Your task to perform on an android device: turn on data saver in the chrome app Image 0: 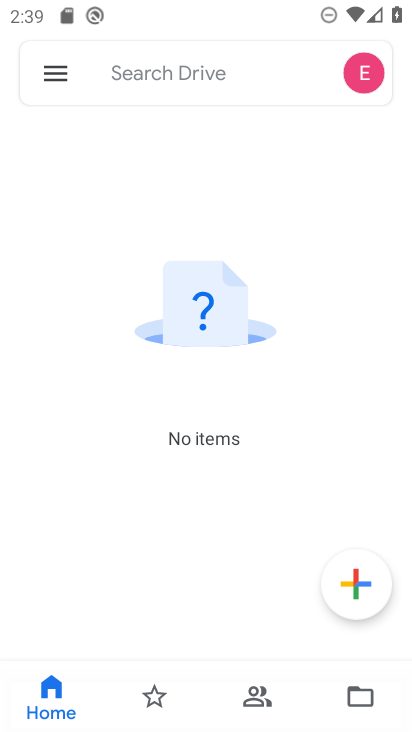
Step 0: press home button
Your task to perform on an android device: turn on data saver in the chrome app Image 1: 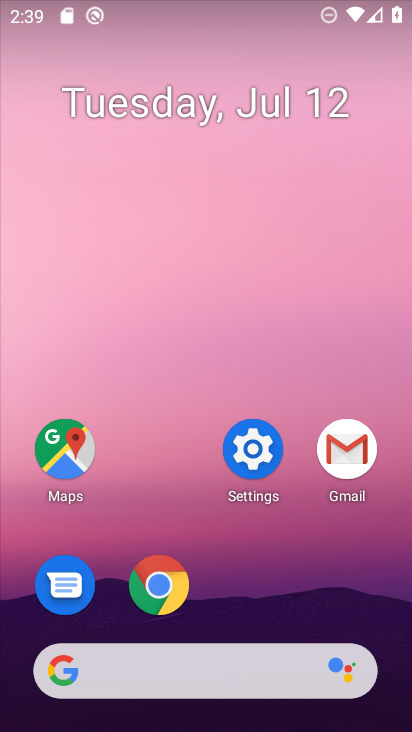
Step 1: click (163, 595)
Your task to perform on an android device: turn on data saver in the chrome app Image 2: 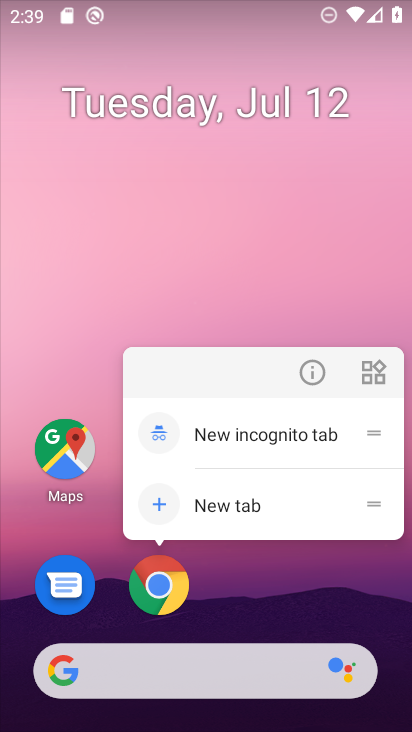
Step 2: click (163, 580)
Your task to perform on an android device: turn on data saver in the chrome app Image 3: 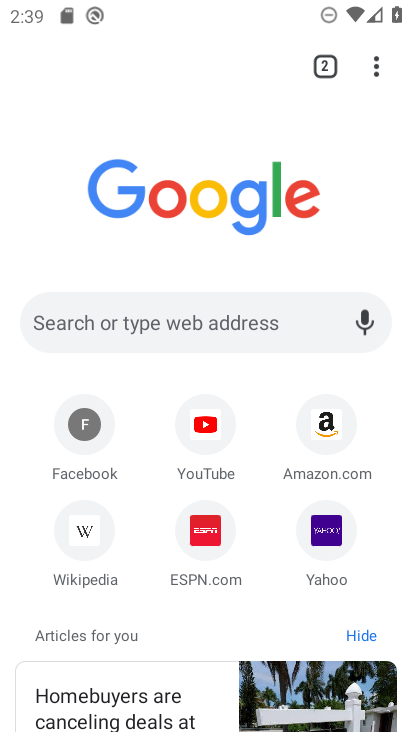
Step 3: click (375, 62)
Your task to perform on an android device: turn on data saver in the chrome app Image 4: 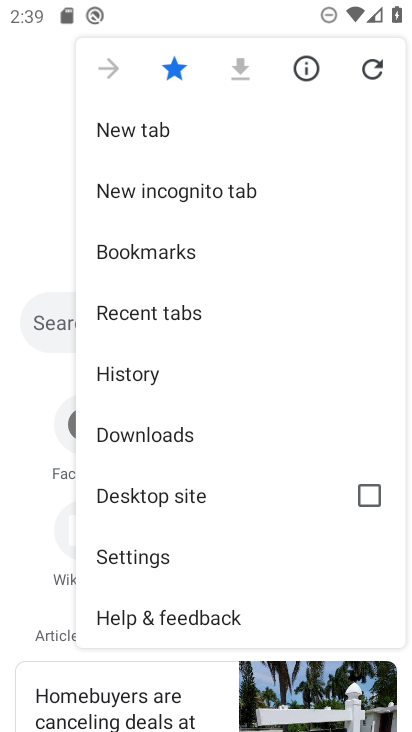
Step 4: click (120, 548)
Your task to perform on an android device: turn on data saver in the chrome app Image 5: 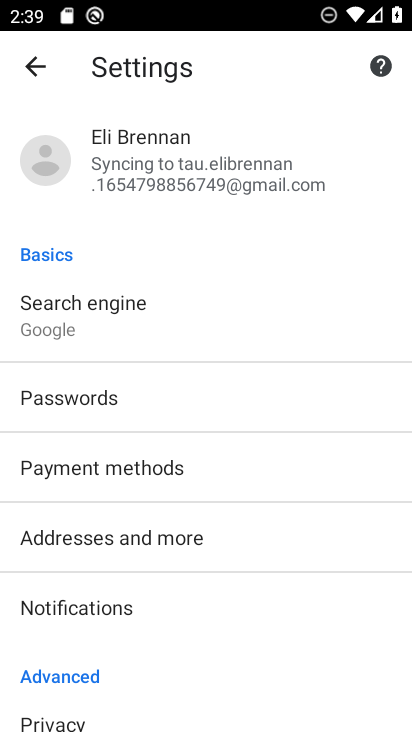
Step 5: drag from (188, 691) to (187, 403)
Your task to perform on an android device: turn on data saver in the chrome app Image 6: 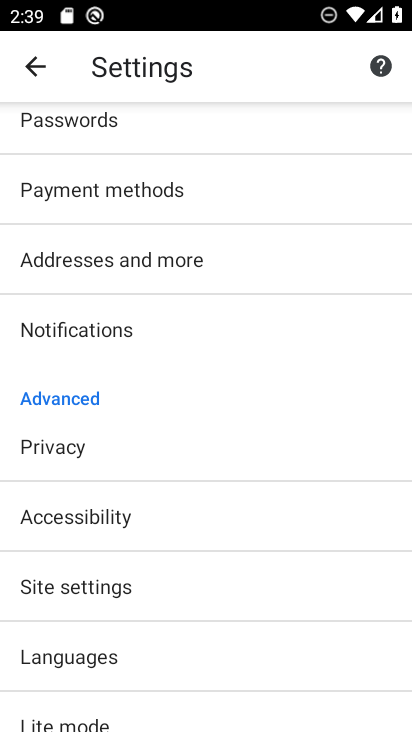
Step 6: drag from (169, 689) to (138, 321)
Your task to perform on an android device: turn on data saver in the chrome app Image 7: 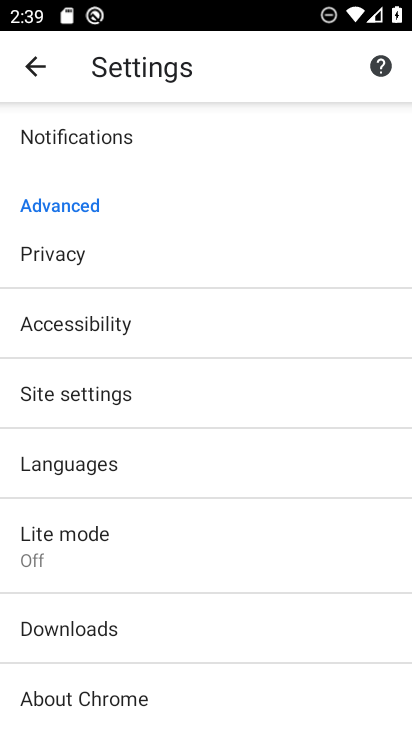
Step 7: click (35, 541)
Your task to perform on an android device: turn on data saver in the chrome app Image 8: 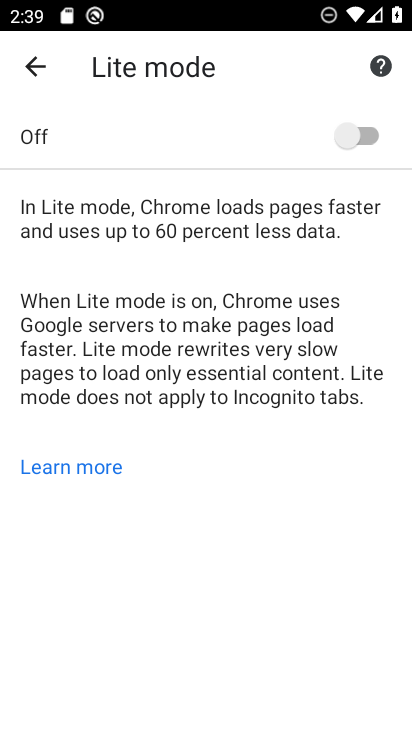
Step 8: click (364, 139)
Your task to perform on an android device: turn on data saver in the chrome app Image 9: 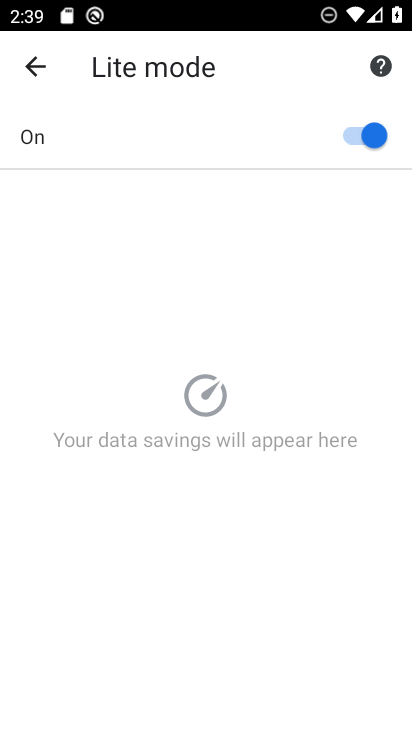
Step 9: task complete